Your task to perform on an android device: When is my next meeting? Image 0: 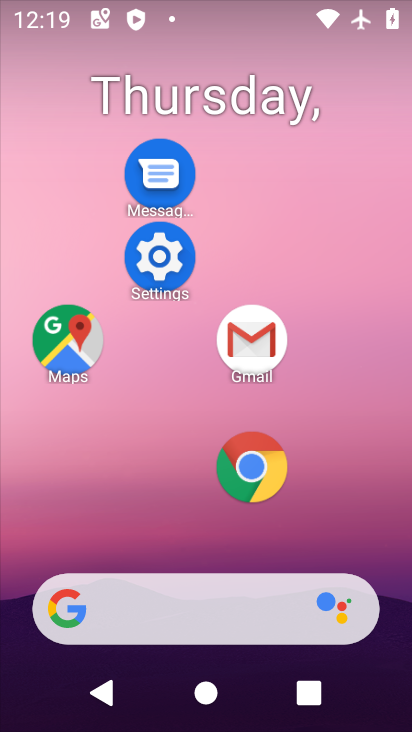
Step 0: click (273, 40)
Your task to perform on an android device: When is my next meeting? Image 1: 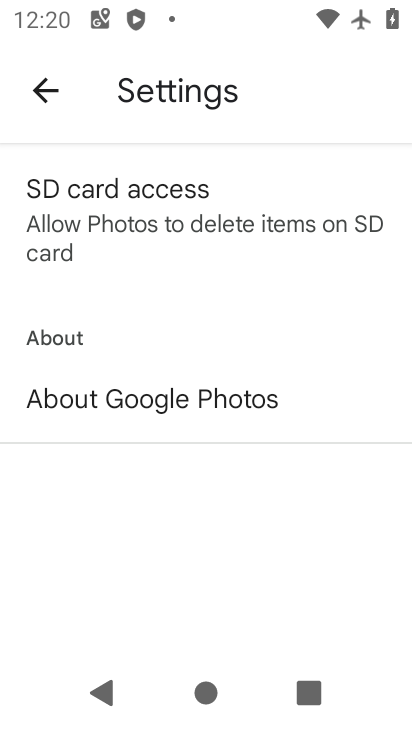
Step 1: press home button
Your task to perform on an android device: When is my next meeting? Image 2: 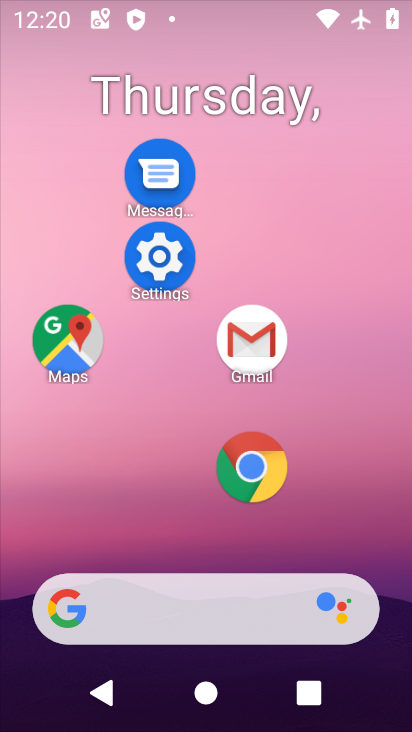
Step 2: click (210, 576)
Your task to perform on an android device: When is my next meeting? Image 3: 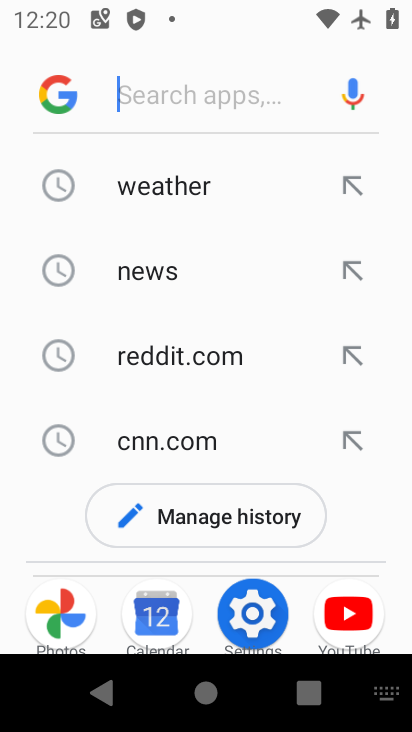
Step 3: press home button
Your task to perform on an android device: When is my next meeting? Image 4: 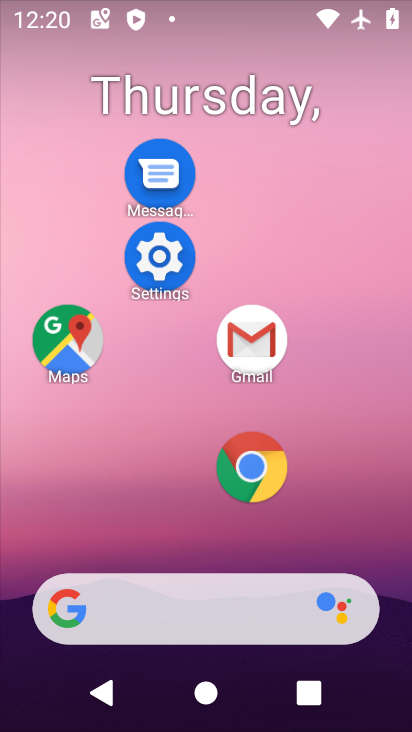
Step 4: drag from (197, 409) to (218, 138)
Your task to perform on an android device: When is my next meeting? Image 5: 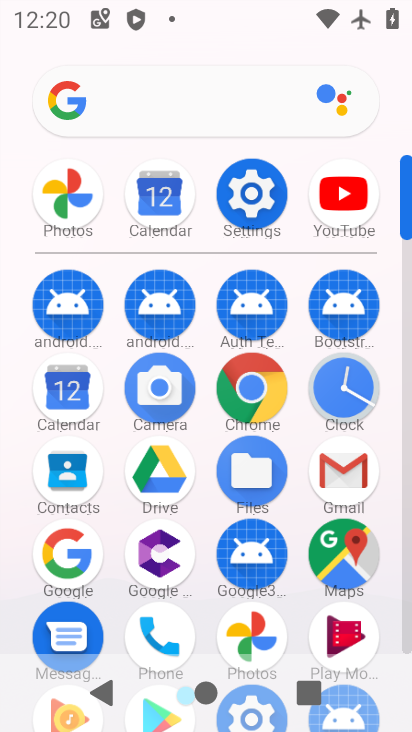
Step 5: click (67, 394)
Your task to perform on an android device: When is my next meeting? Image 6: 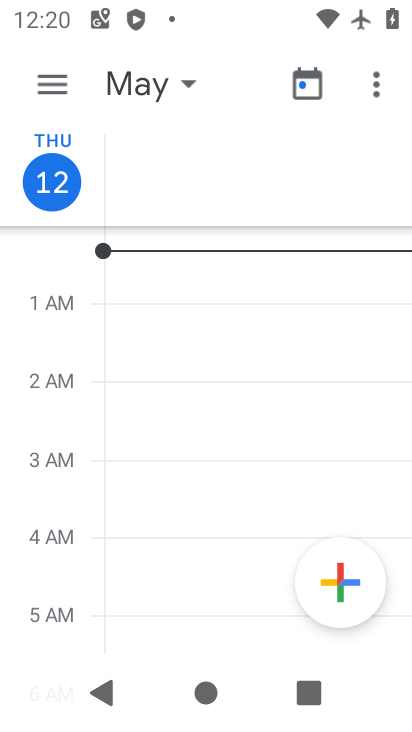
Step 6: click (173, 83)
Your task to perform on an android device: When is my next meeting? Image 7: 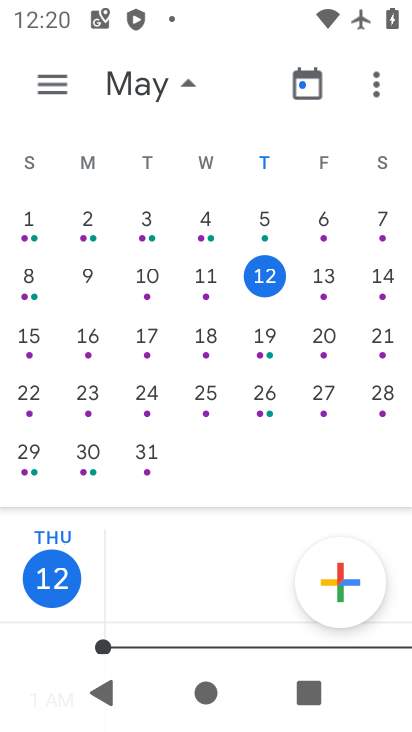
Step 7: task complete